Your task to perform on an android device: open a bookmark in the chrome app Image 0: 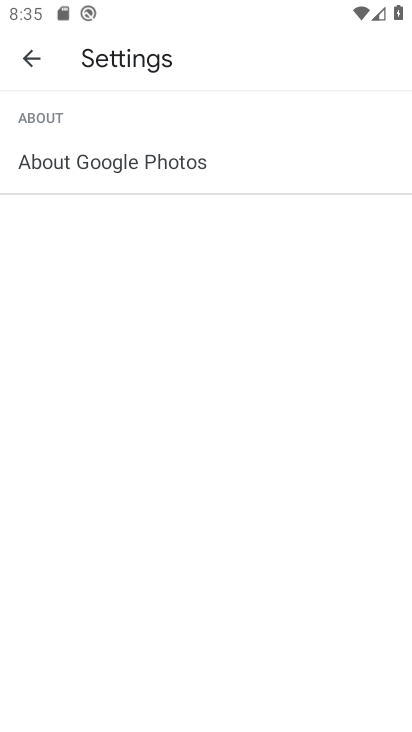
Step 0: press home button
Your task to perform on an android device: open a bookmark in the chrome app Image 1: 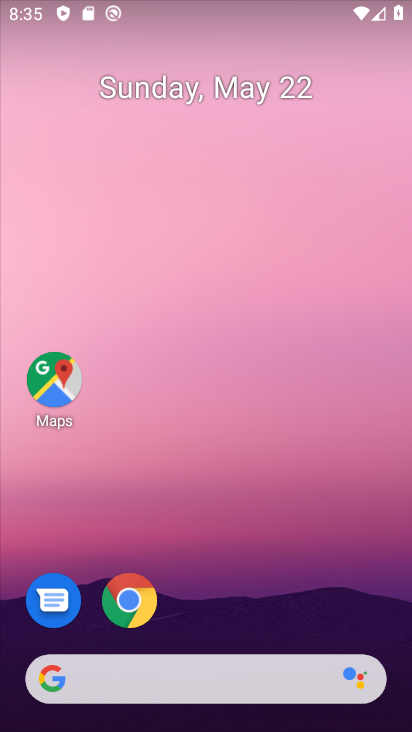
Step 1: click (139, 598)
Your task to perform on an android device: open a bookmark in the chrome app Image 2: 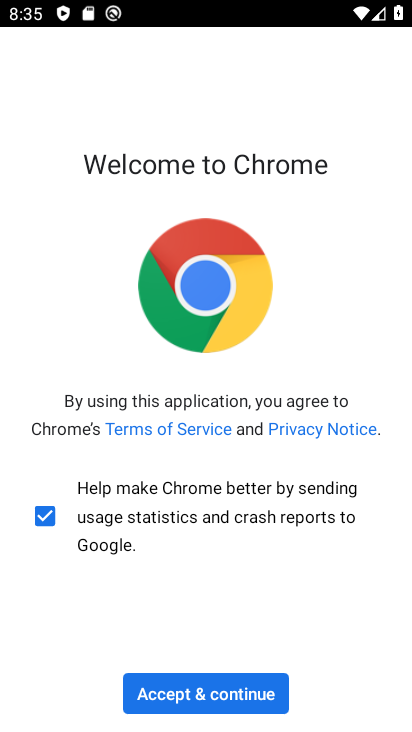
Step 2: click (237, 700)
Your task to perform on an android device: open a bookmark in the chrome app Image 3: 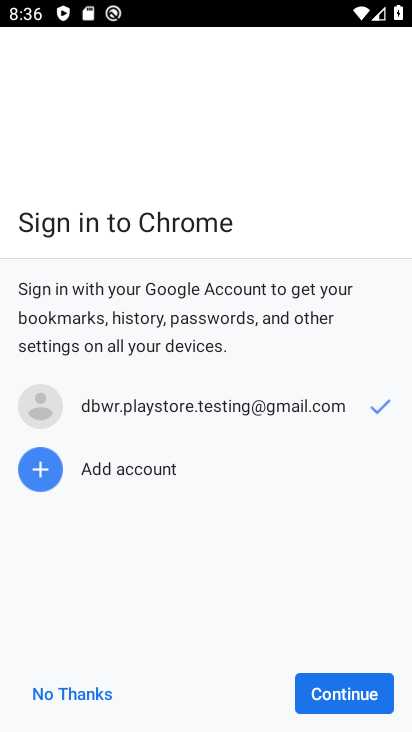
Step 3: click (329, 689)
Your task to perform on an android device: open a bookmark in the chrome app Image 4: 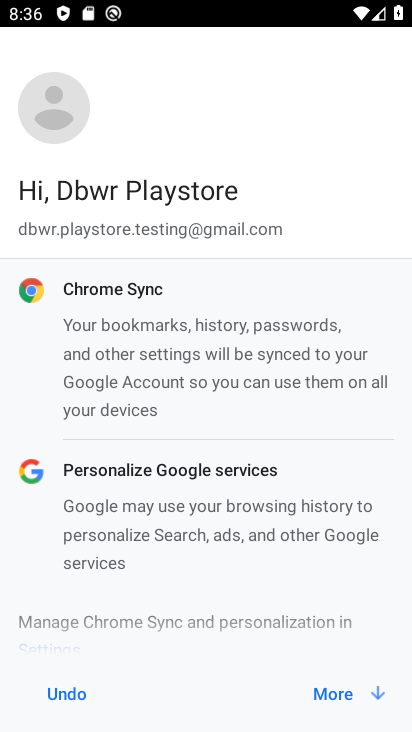
Step 4: click (328, 689)
Your task to perform on an android device: open a bookmark in the chrome app Image 5: 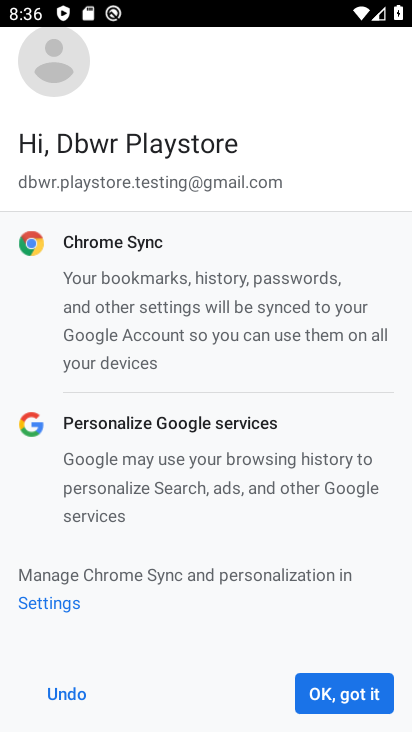
Step 5: click (328, 689)
Your task to perform on an android device: open a bookmark in the chrome app Image 6: 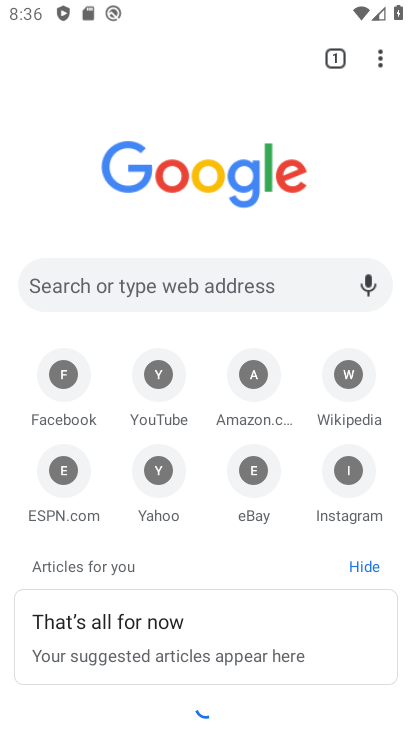
Step 6: click (375, 62)
Your task to perform on an android device: open a bookmark in the chrome app Image 7: 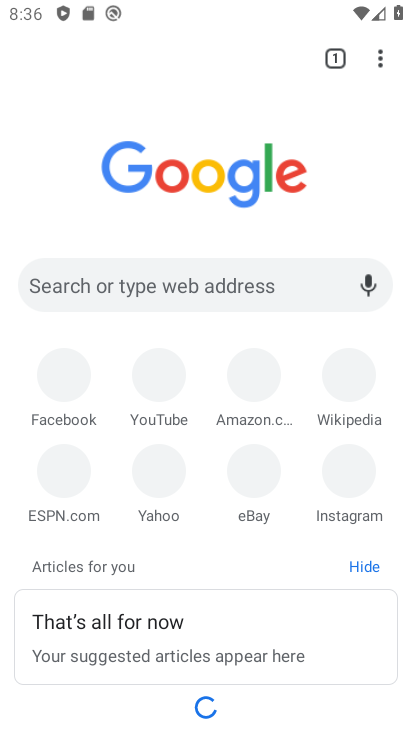
Step 7: click (380, 63)
Your task to perform on an android device: open a bookmark in the chrome app Image 8: 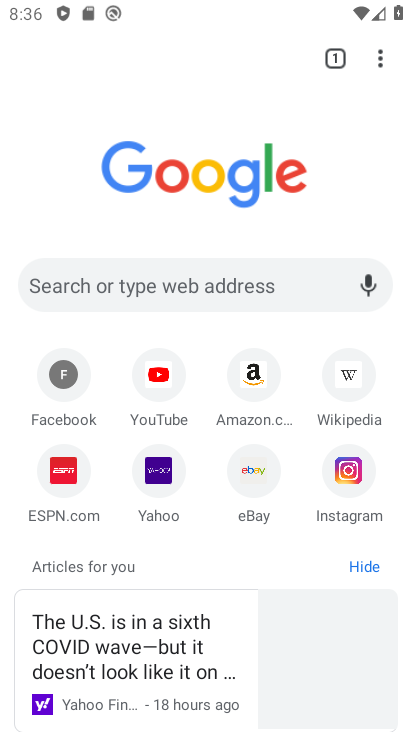
Step 8: click (380, 63)
Your task to perform on an android device: open a bookmark in the chrome app Image 9: 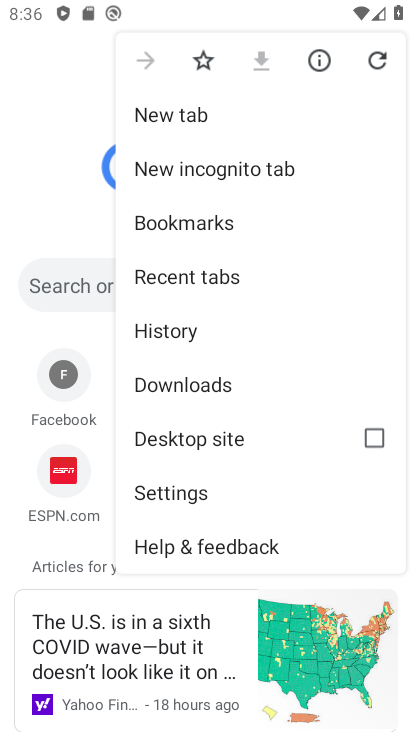
Step 9: click (143, 219)
Your task to perform on an android device: open a bookmark in the chrome app Image 10: 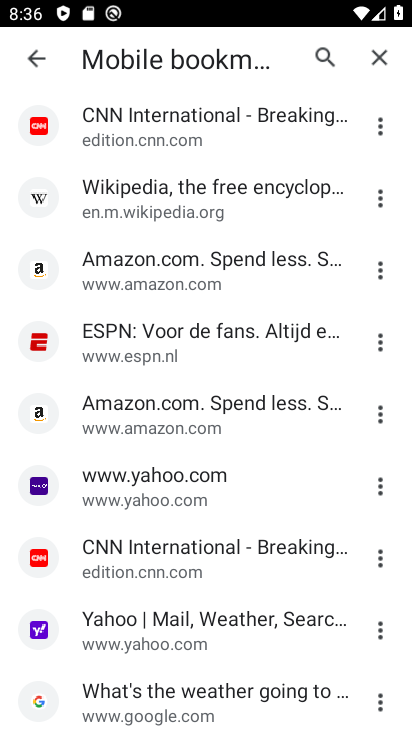
Step 10: click (152, 211)
Your task to perform on an android device: open a bookmark in the chrome app Image 11: 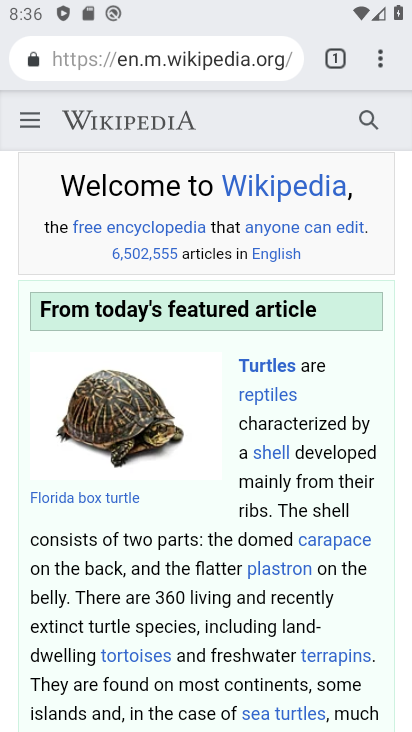
Step 11: task complete